Your task to perform on an android device: Search for seafood restaurants on Google Maps Image 0: 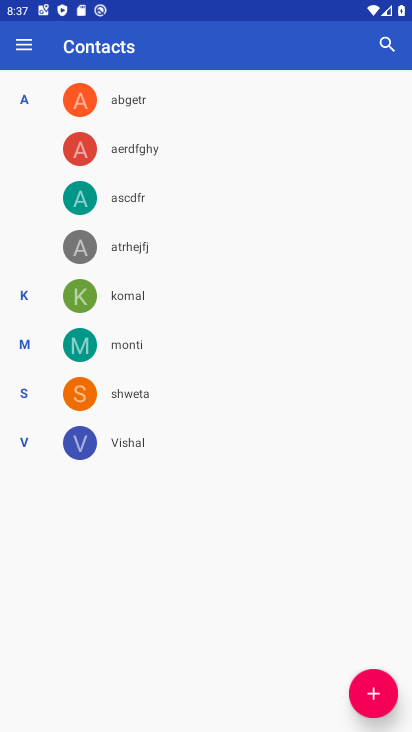
Step 0: press home button
Your task to perform on an android device: Search for seafood restaurants on Google Maps Image 1: 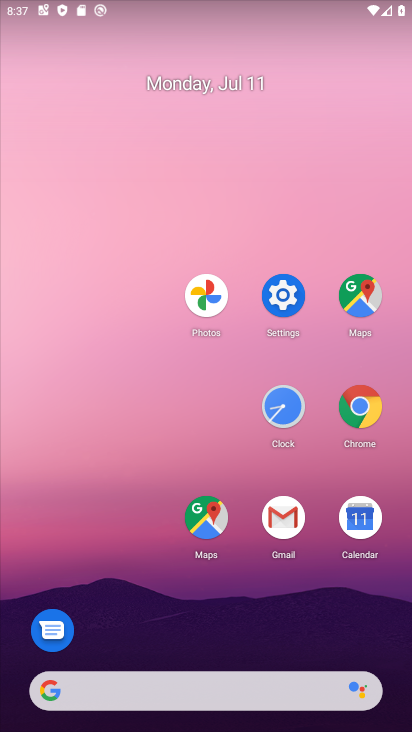
Step 1: click (213, 528)
Your task to perform on an android device: Search for seafood restaurants on Google Maps Image 2: 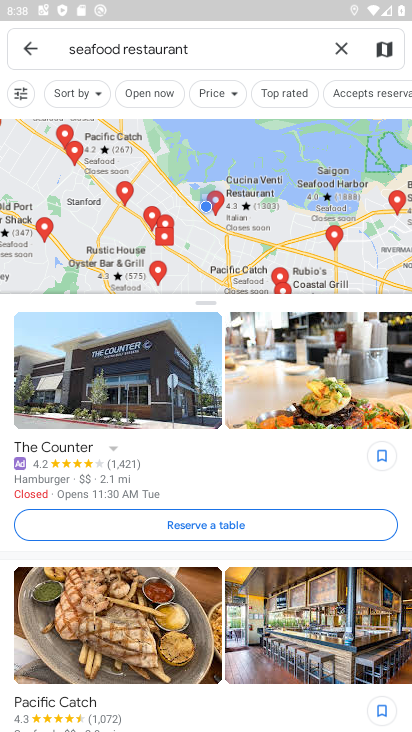
Step 2: task complete